Your task to perform on an android device: When is my next meeting? Image 0: 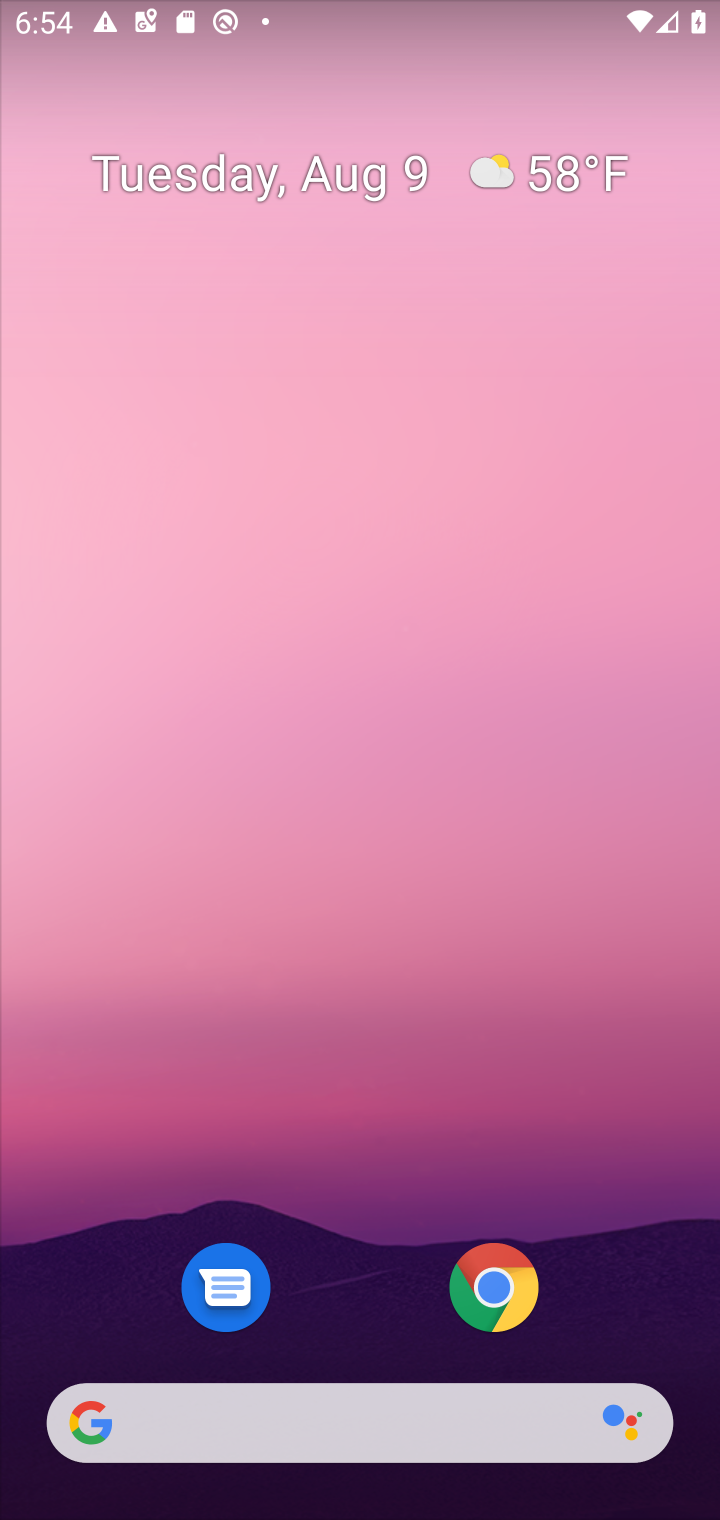
Step 0: task complete